Your task to perform on an android device: Open Google Maps and go to "Timeline" Image 0: 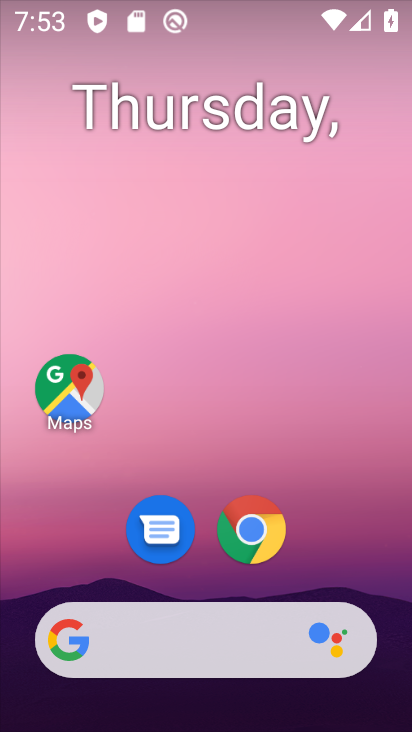
Step 0: click (56, 407)
Your task to perform on an android device: Open Google Maps and go to "Timeline" Image 1: 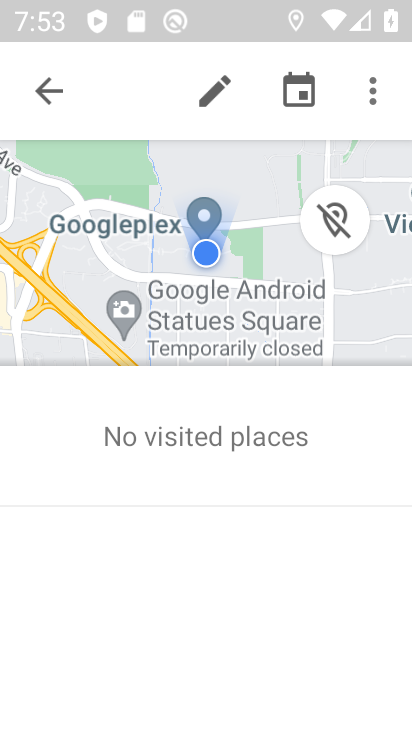
Step 1: task complete